Your task to perform on an android device: Go to battery settings Image 0: 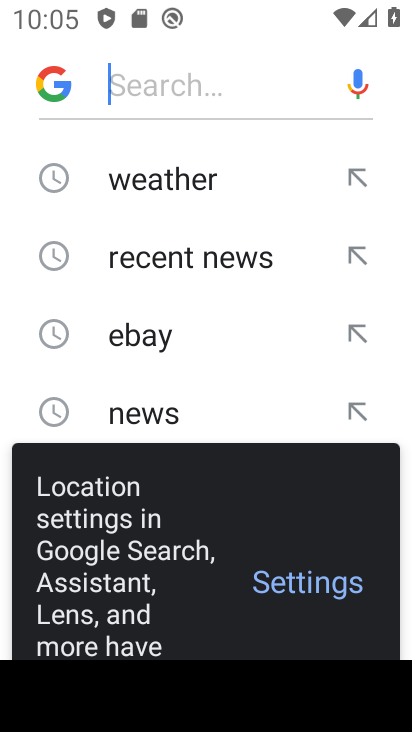
Step 0: press home button
Your task to perform on an android device: Go to battery settings Image 1: 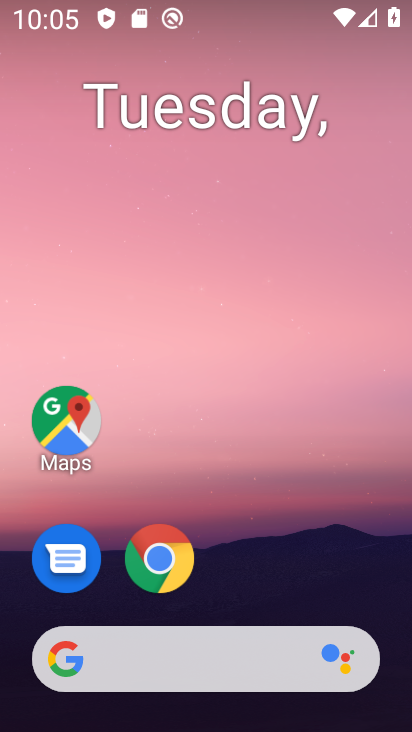
Step 1: drag from (341, 569) to (333, 62)
Your task to perform on an android device: Go to battery settings Image 2: 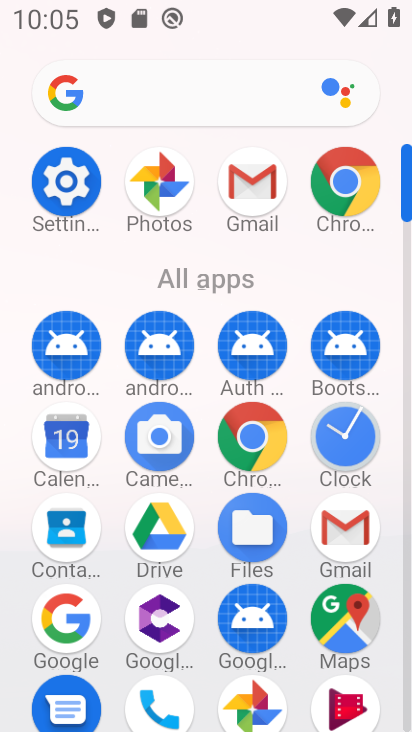
Step 2: click (70, 184)
Your task to perform on an android device: Go to battery settings Image 3: 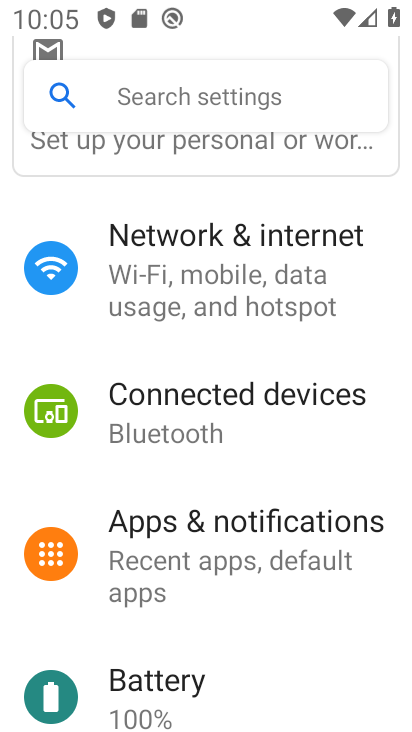
Step 3: drag from (353, 291) to (358, 376)
Your task to perform on an android device: Go to battery settings Image 4: 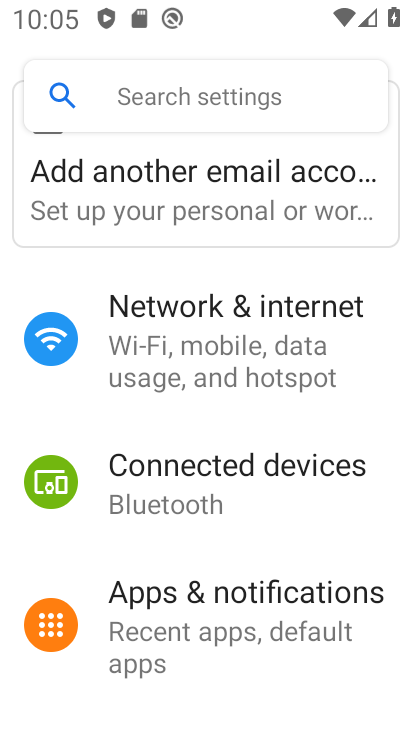
Step 4: drag from (383, 275) to (384, 376)
Your task to perform on an android device: Go to battery settings Image 5: 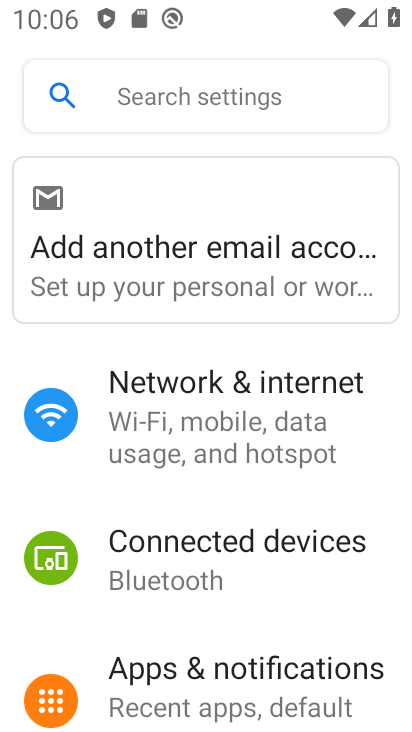
Step 5: drag from (372, 456) to (361, 341)
Your task to perform on an android device: Go to battery settings Image 6: 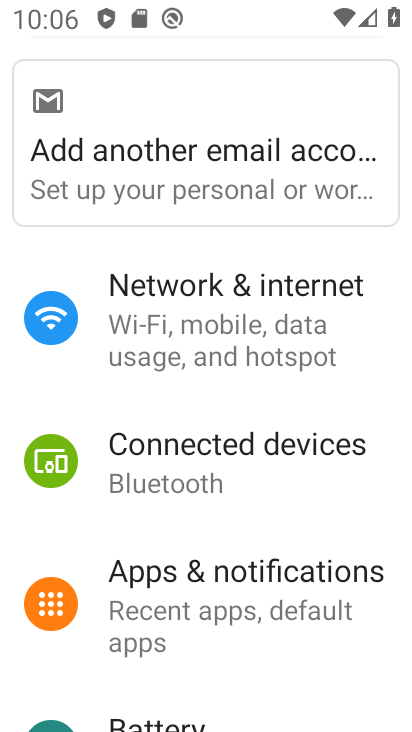
Step 6: drag from (359, 500) to (361, 411)
Your task to perform on an android device: Go to battery settings Image 7: 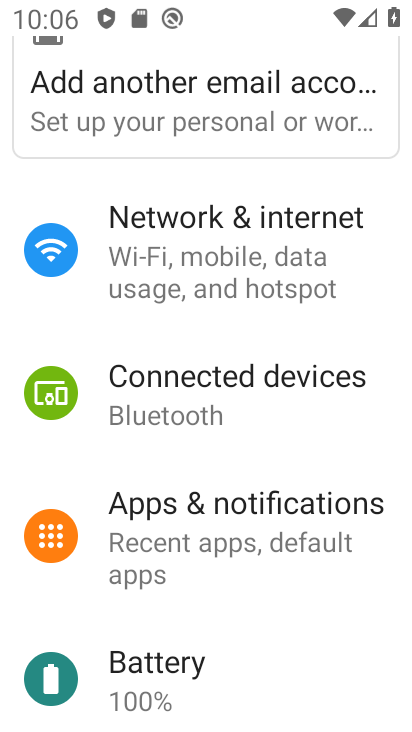
Step 7: drag from (355, 566) to (355, 421)
Your task to perform on an android device: Go to battery settings Image 8: 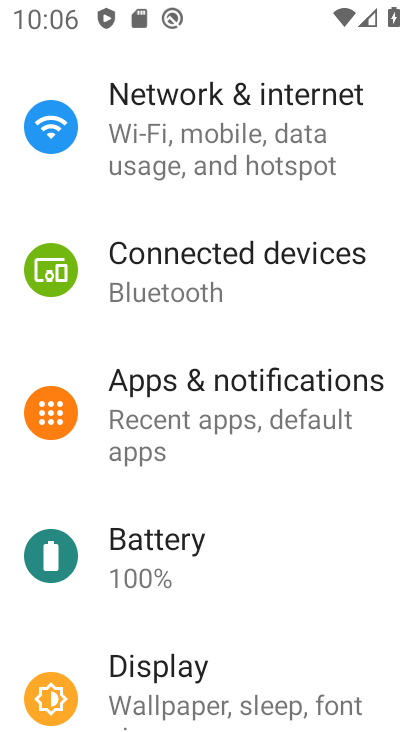
Step 8: drag from (333, 533) to (336, 430)
Your task to perform on an android device: Go to battery settings Image 9: 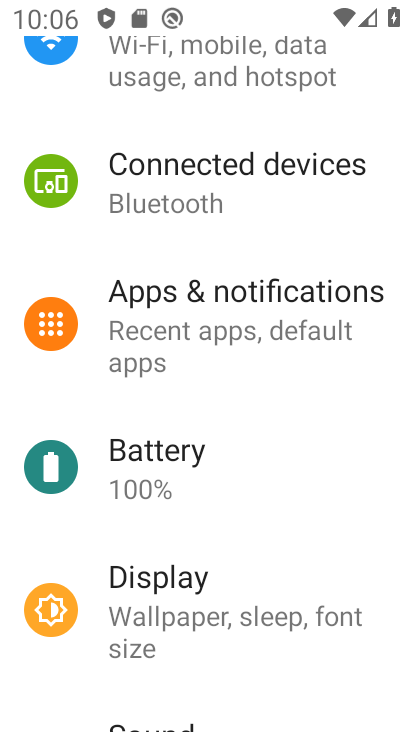
Step 9: click (318, 466)
Your task to perform on an android device: Go to battery settings Image 10: 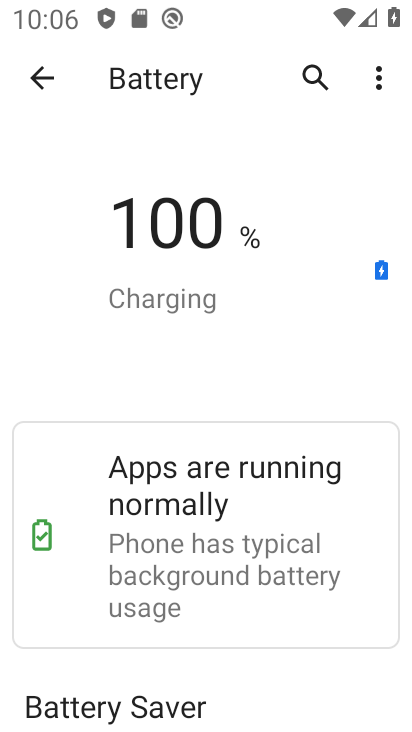
Step 10: task complete